Your task to perform on an android device: Is it going to rain today? Image 0: 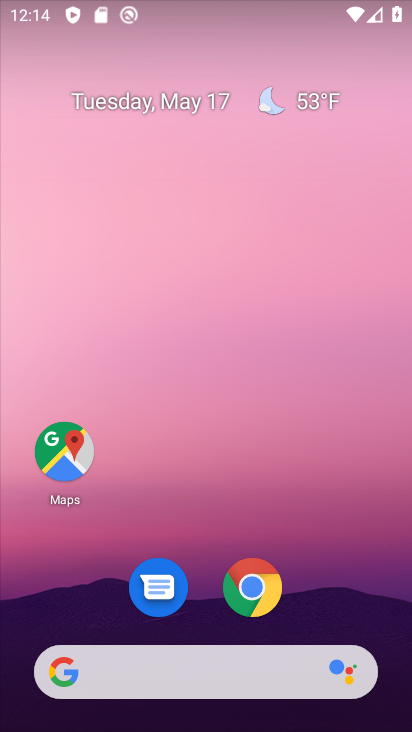
Step 0: click (324, 103)
Your task to perform on an android device: Is it going to rain today? Image 1: 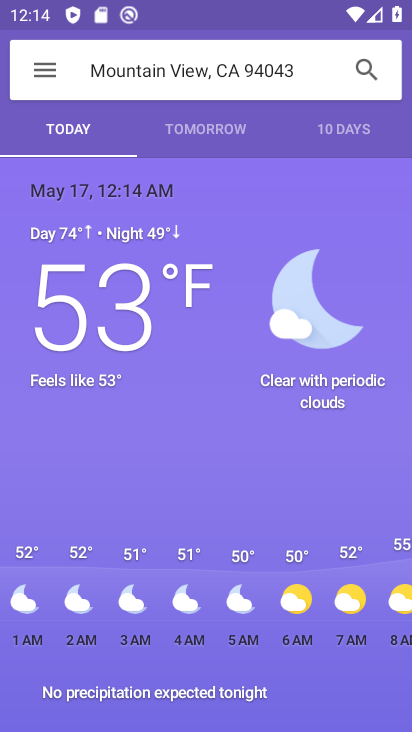
Step 1: task complete